Your task to perform on an android device: Open Google Chrome and open the bookmarks view Image 0: 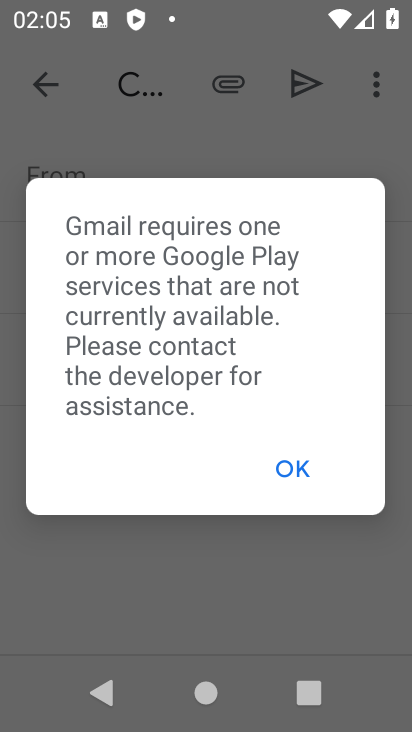
Step 0: drag from (331, 539) to (371, 211)
Your task to perform on an android device: Open Google Chrome and open the bookmarks view Image 1: 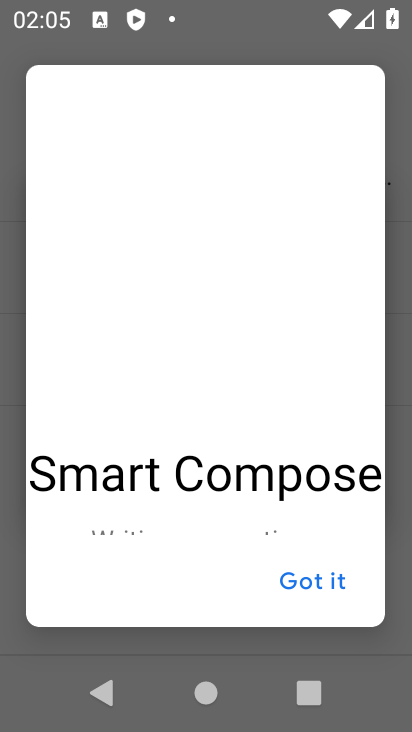
Step 1: press home button
Your task to perform on an android device: Open Google Chrome and open the bookmarks view Image 2: 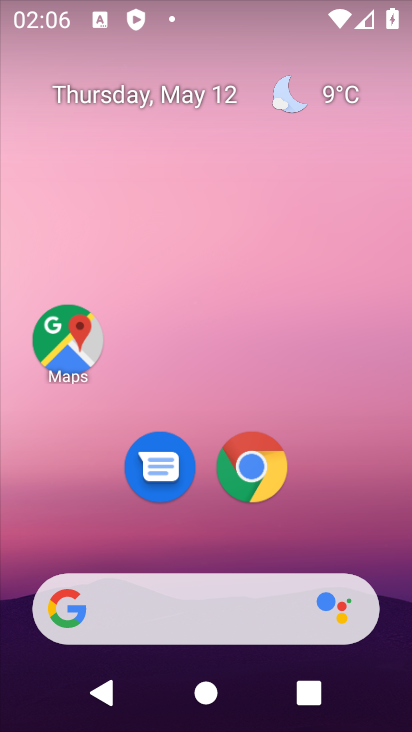
Step 2: drag from (331, 551) to (335, 244)
Your task to perform on an android device: Open Google Chrome and open the bookmarks view Image 3: 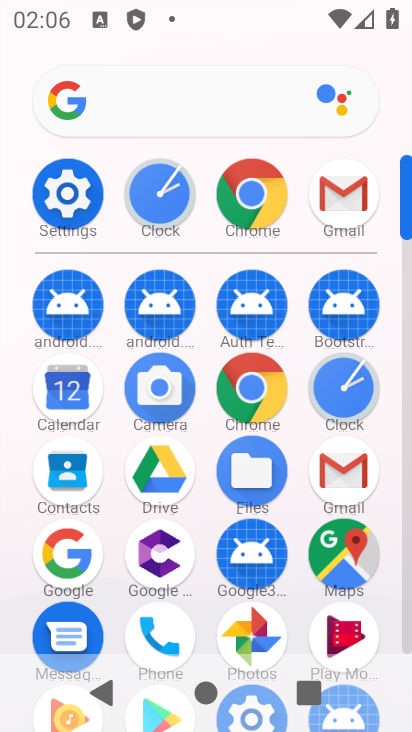
Step 3: click (254, 185)
Your task to perform on an android device: Open Google Chrome and open the bookmarks view Image 4: 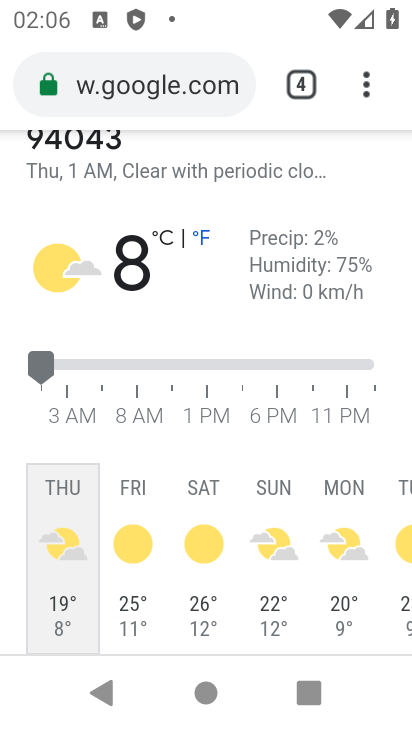
Step 4: click (353, 76)
Your task to perform on an android device: Open Google Chrome and open the bookmarks view Image 5: 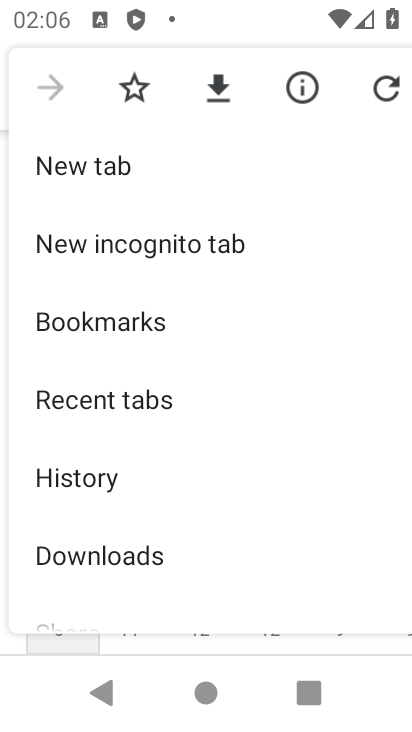
Step 5: drag from (120, 473) to (155, 324)
Your task to perform on an android device: Open Google Chrome and open the bookmarks view Image 6: 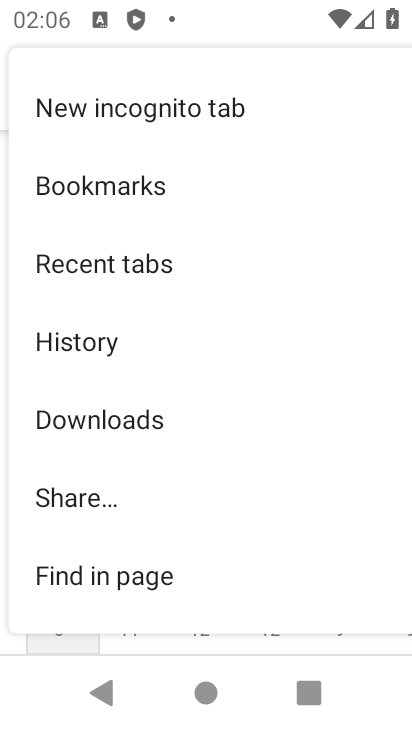
Step 6: click (153, 188)
Your task to perform on an android device: Open Google Chrome and open the bookmarks view Image 7: 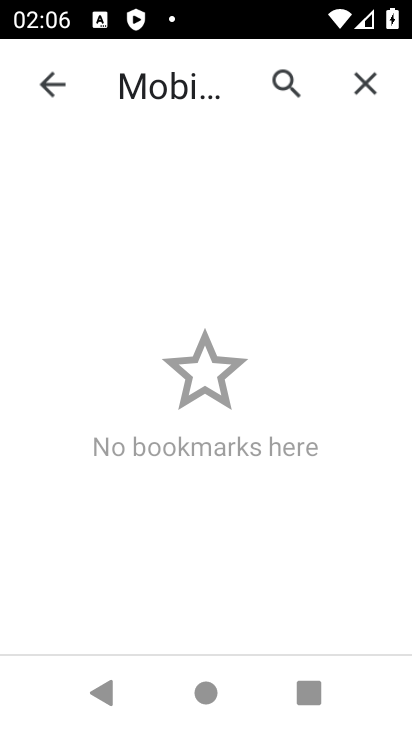
Step 7: task complete